Your task to perform on an android device: set default search engine in the chrome app Image 0: 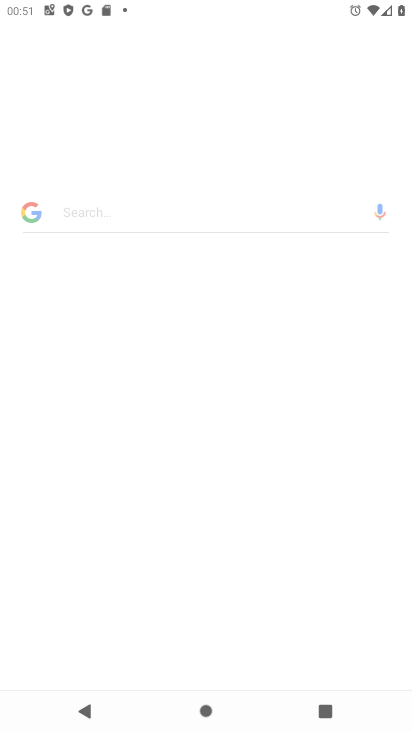
Step 0: press home button
Your task to perform on an android device: set default search engine in the chrome app Image 1: 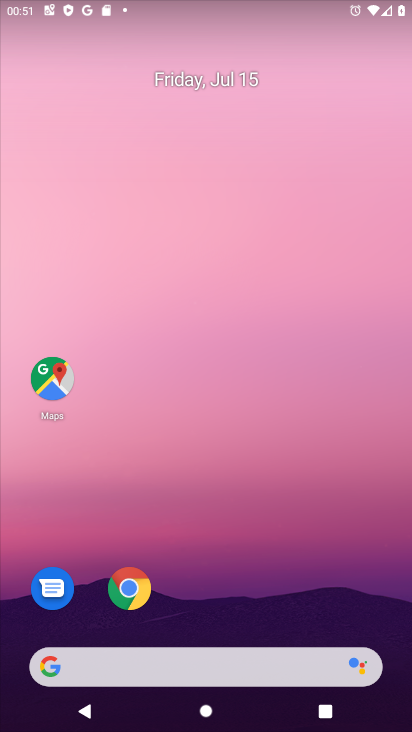
Step 1: click (136, 594)
Your task to perform on an android device: set default search engine in the chrome app Image 2: 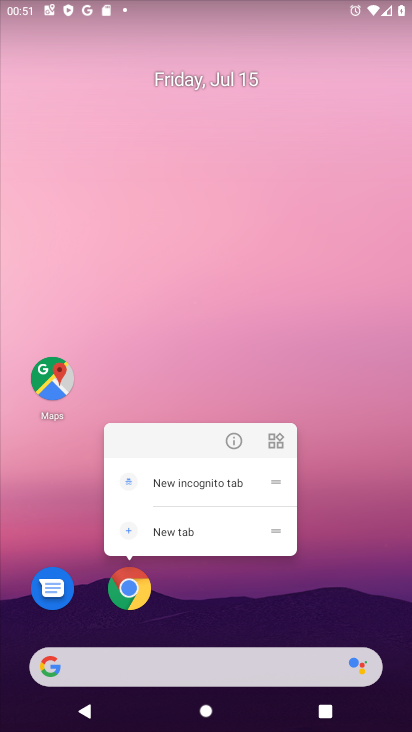
Step 2: click (140, 590)
Your task to perform on an android device: set default search engine in the chrome app Image 3: 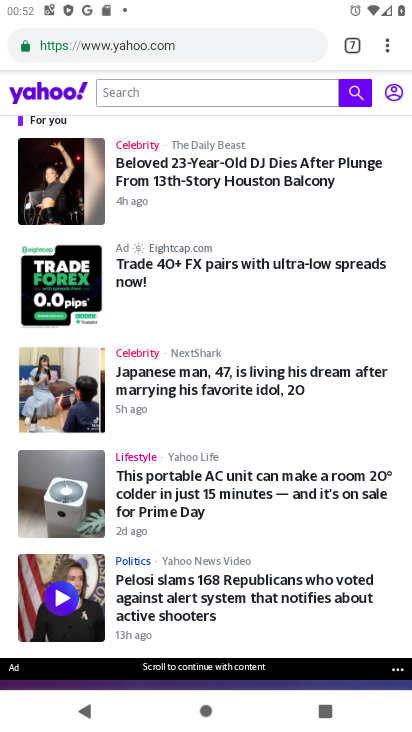
Step 3: drag from (387, 50) to (246, 548)
Your task to perform on an android device: set default search engine in the chrome app Image 4: 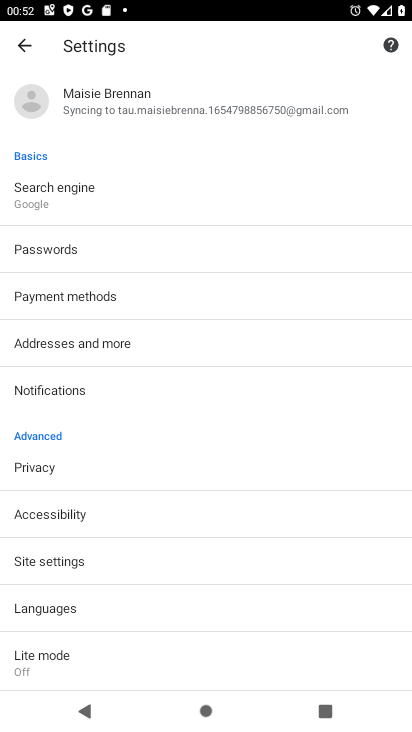
Step 4: click (62, 205)
Your task to perform on an android device: set default search engine in the chrome app Image 5: 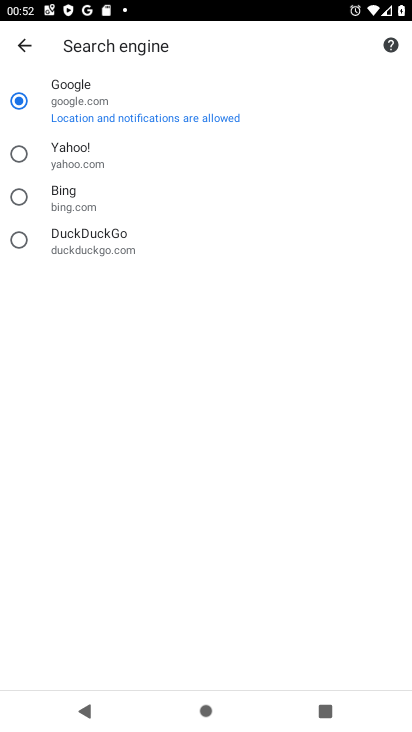
Step 5: click (26, 149)
Your task to perform on an android device: set default search engine in the chrome app Image 6: 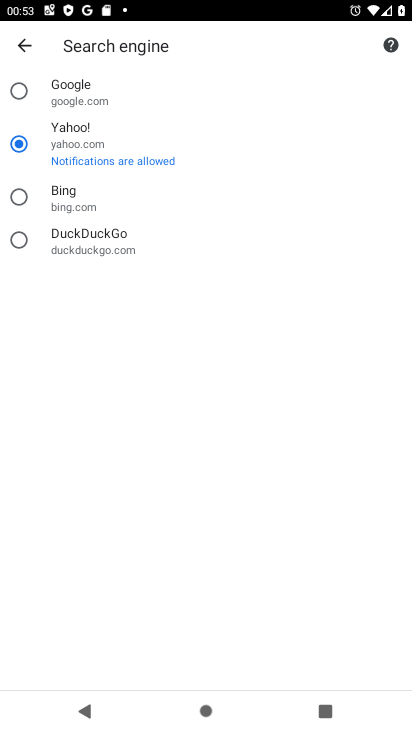
Step 6: task complete